Your task to perform on an android device: Open wifi settings Image 0: 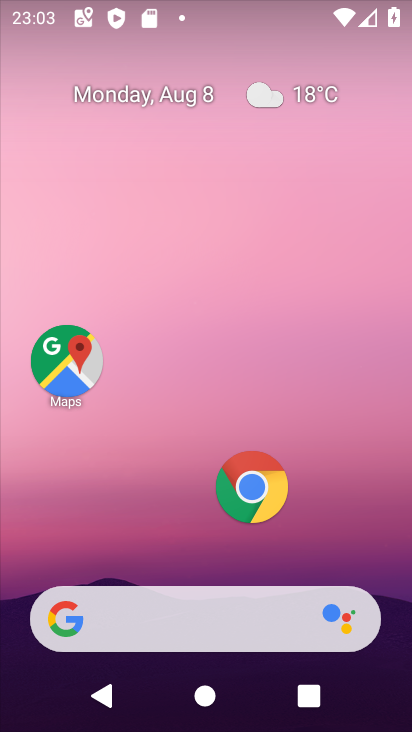
Step 0: drag from (215, 571) to (183, 121)
Your task to perform on an android device: Open wifi settings Image 1: 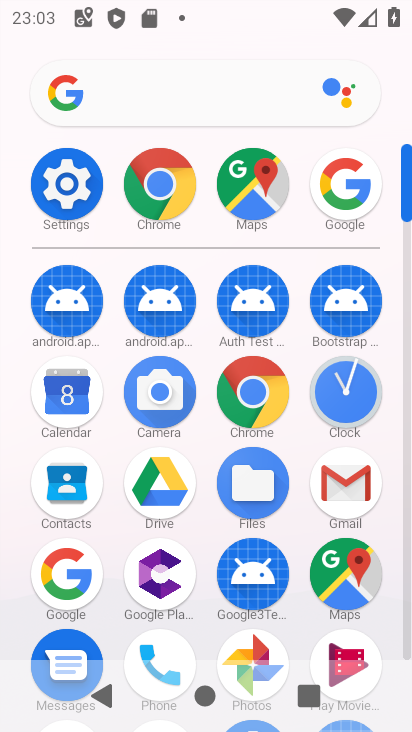
Step 1: click (77, 179)
Your task to perform on an android device: Open wifi settings Image 2: 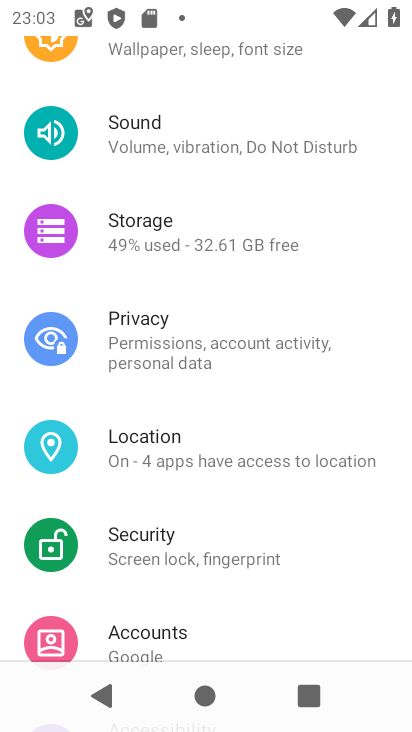
Step 2: drag from (149, 126) to (140, 454)
Your task to perform on an android device: Open wifi settings Image 3: 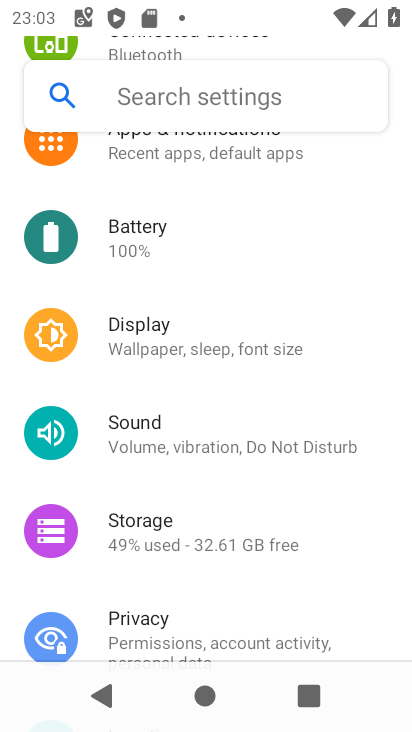
Step 3: drag from (171, 177) to (142, 507)
Your task to perform on an android device: Open wifi settings Image 4: 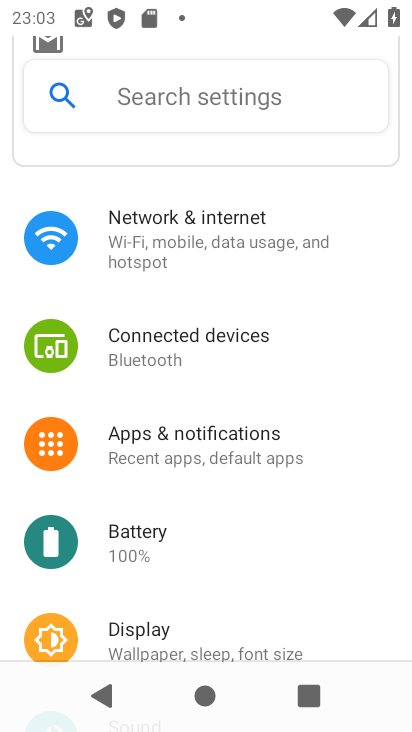
Step 4: drag from (177, 217) to (184, 492)
Your task to perform on an android device: Open wifi settings Image 5: 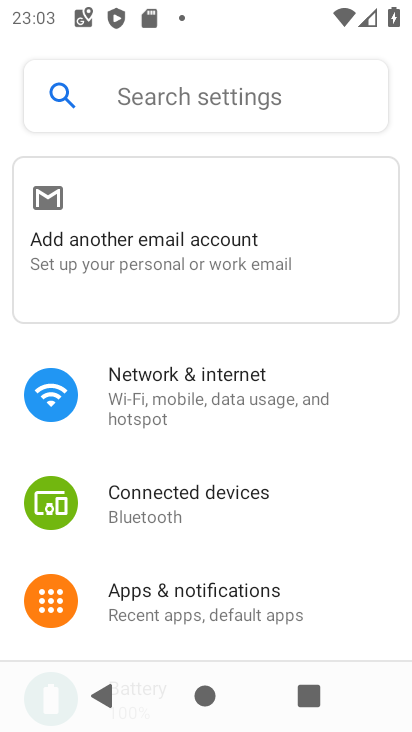
Step 5: click (171, 399)
Your task to perform on an android device: Open wifi settings Image 6: 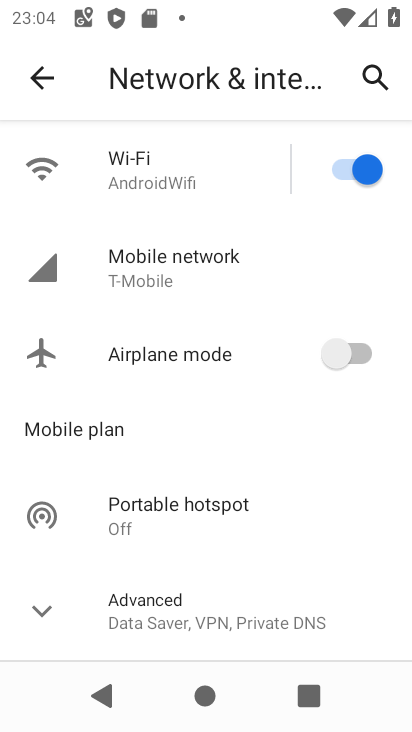
Step 6: click (345, 161)
Your task to perform on an android device: Open wifi settings Image 7: 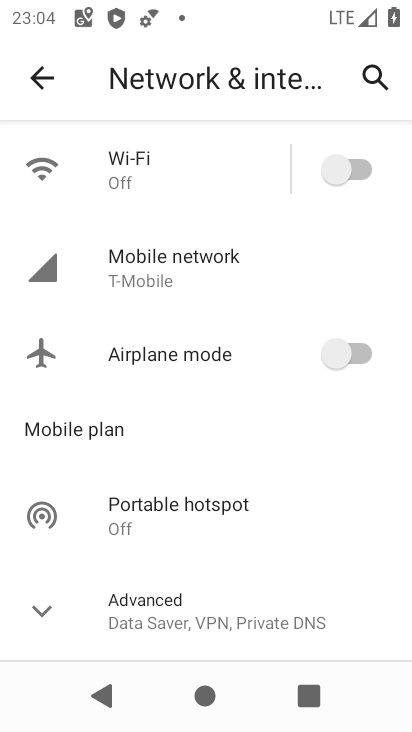
Step 7: task complete